Your task to perform on an android device: open the mobile data screen to see how much data has been used Image 0: 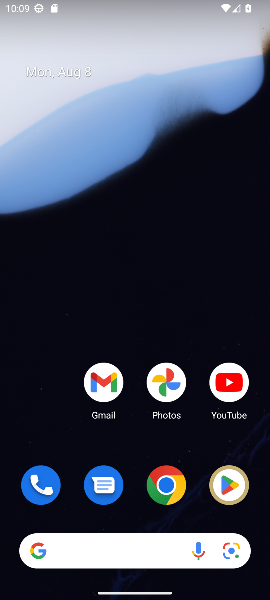
Step 0: drag from (200, 462) to (190, 25)
Your task to perform on an android device: open the mobile data screen to see how much data has been used Image 1: 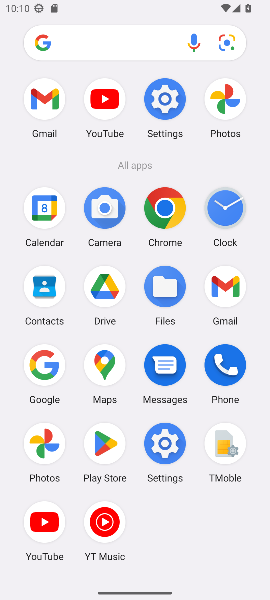
Step 1: drag from (139, 0) to (143, 471)
Your task to perform on an android device: open the mobile data screen to see how much data has been used Image 2: 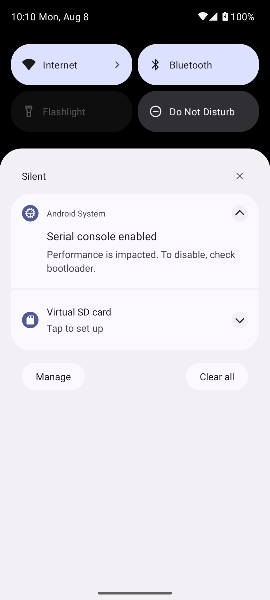
Step 2: click (36, 63)
Your task to perform on an android device: open the mobile data screen to see how much data has been used Image 3: 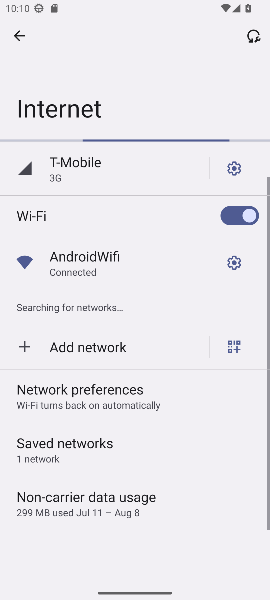
Step 3: task complete